Your task to perform on an android device: allow cookies in the chrome app Image 0: 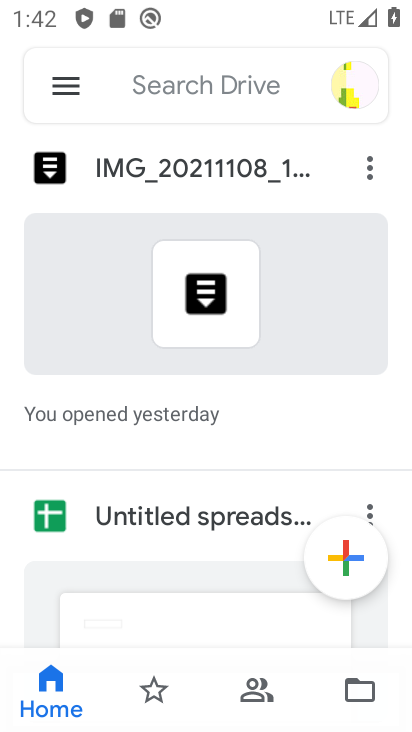
Step 0: press home button
Your task to perform on an android device: allow cookies in the chrome app Image 1: 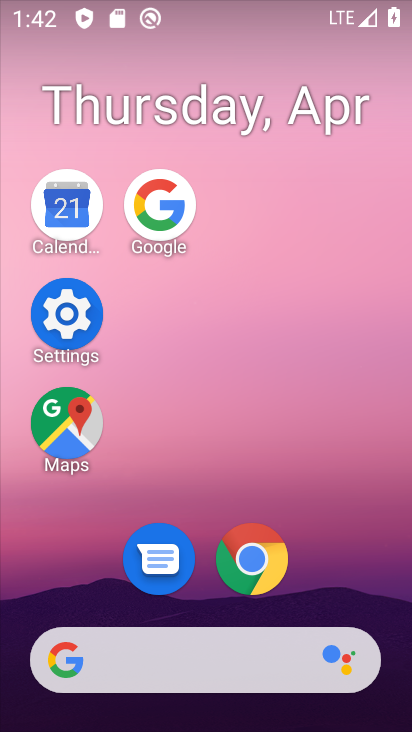
Step 1: click (245, 566)
Your task to perform on an android device: allow cookies in the chrome app Image 2: 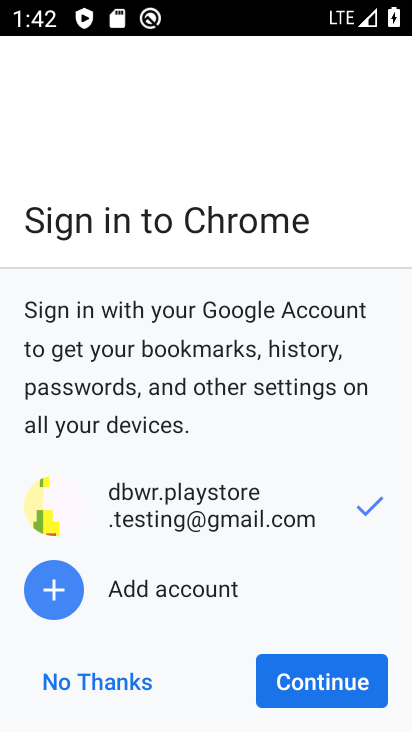
Step 2: click (335, 669)
Your task to perform on an android device: allow cookies in the chrome app Image 3: 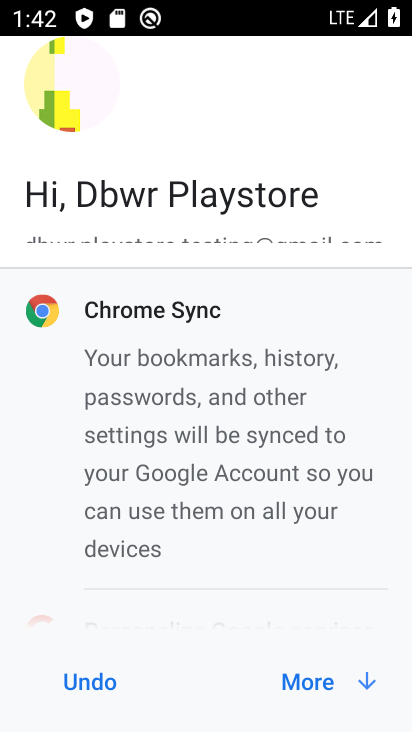
Step 3: click (335, 669)
Your task to perform on an android device: allow cookies in the chrome app Image 4: 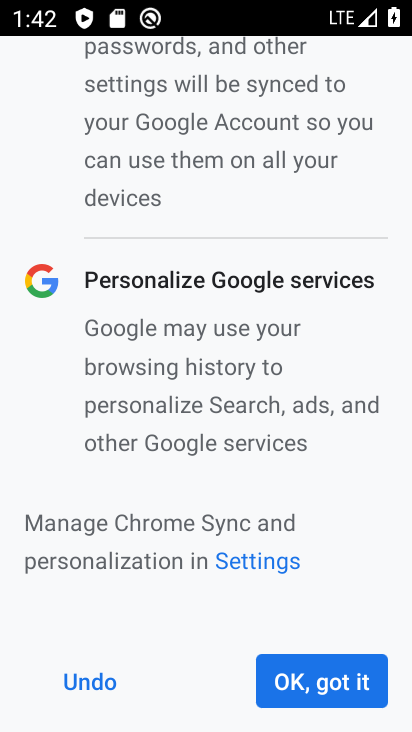
Step 4: click (335, 669)
Your task to perform on an android device: allow cookies in the chrome app Image 5: 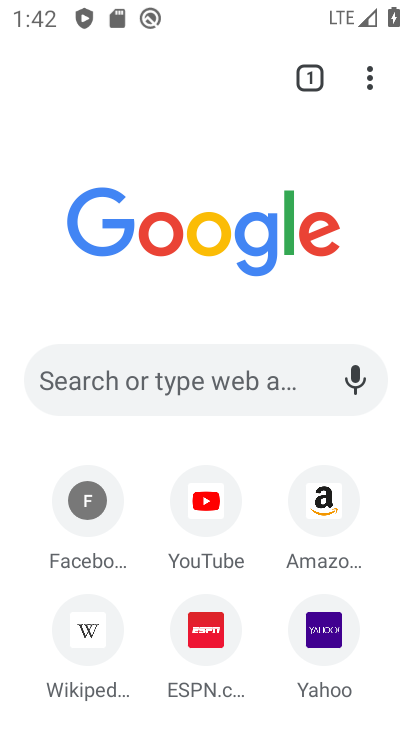
Step 5: click (377, 84)
Your task to perform on an android device: allow cookies in the chrome app Image 6: 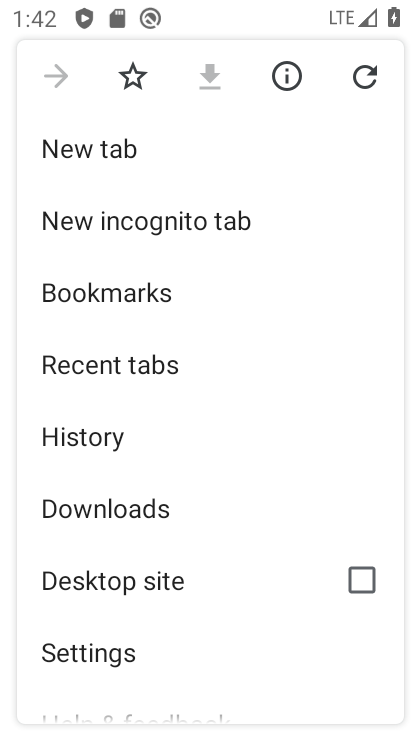
Step 6: drag from (244, 570) to (208, 112)
Your task to perform on an android device: allow cookies in the chrome app Image 7: 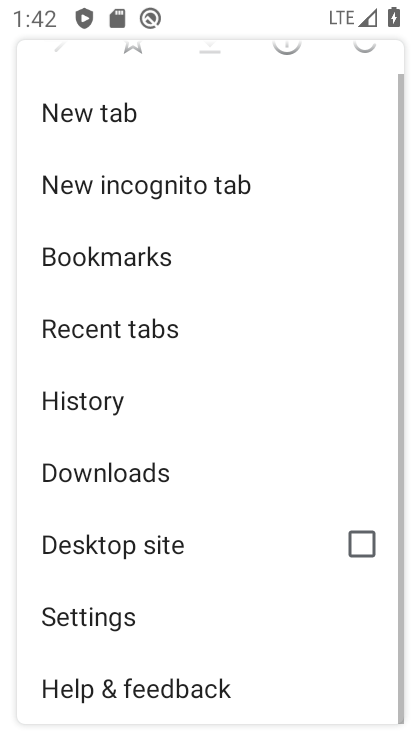
Step 7: click (202, 627)
Your task to perform on an android device: allow cookies in the chrome app Image 8: 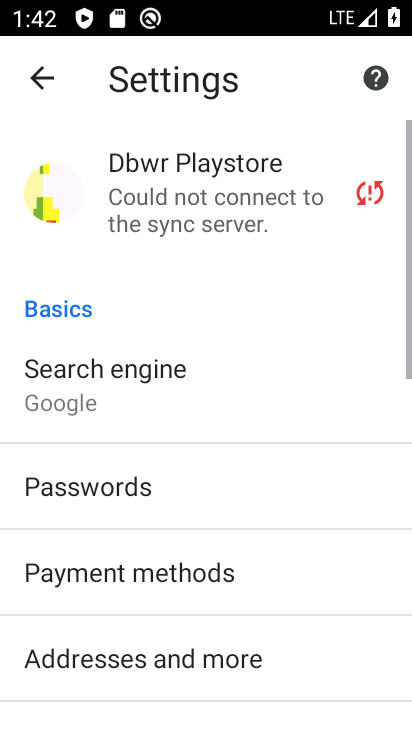
Step 8: drag from (202, 627) to (242, 136)
Your task to perform on an android device: allow cookies in the chrome app Image 9: 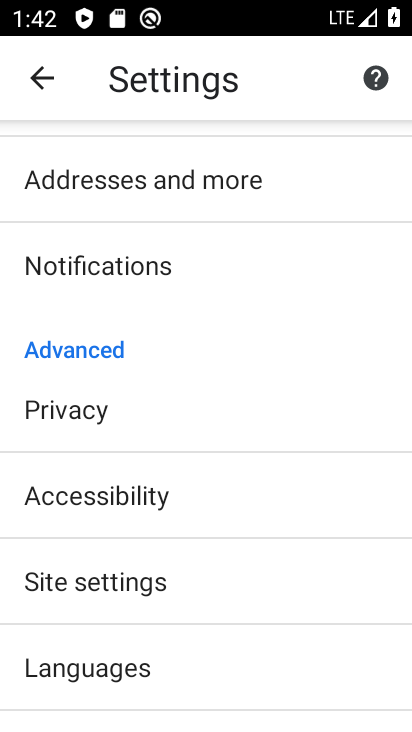
Step 9: click (141, 586)
Your task to perform on an android device: allow cookies in the chrome app Image 10: 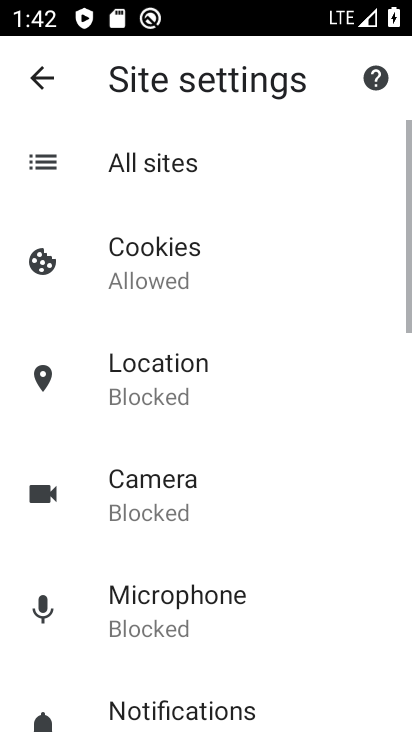
Step 10: click (208, 269)
Your task to perform on an android device: allow cookies in the chrome app Image 11: 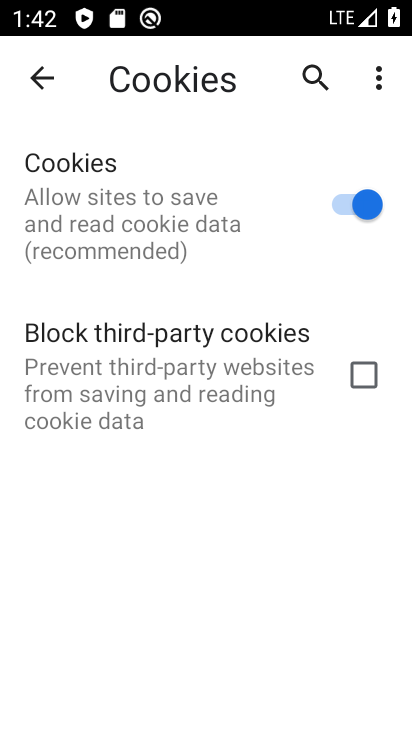
Step 11: task complete